Your task to perform on an android device: open app "Gboard" (install if not already installed) Image 0: 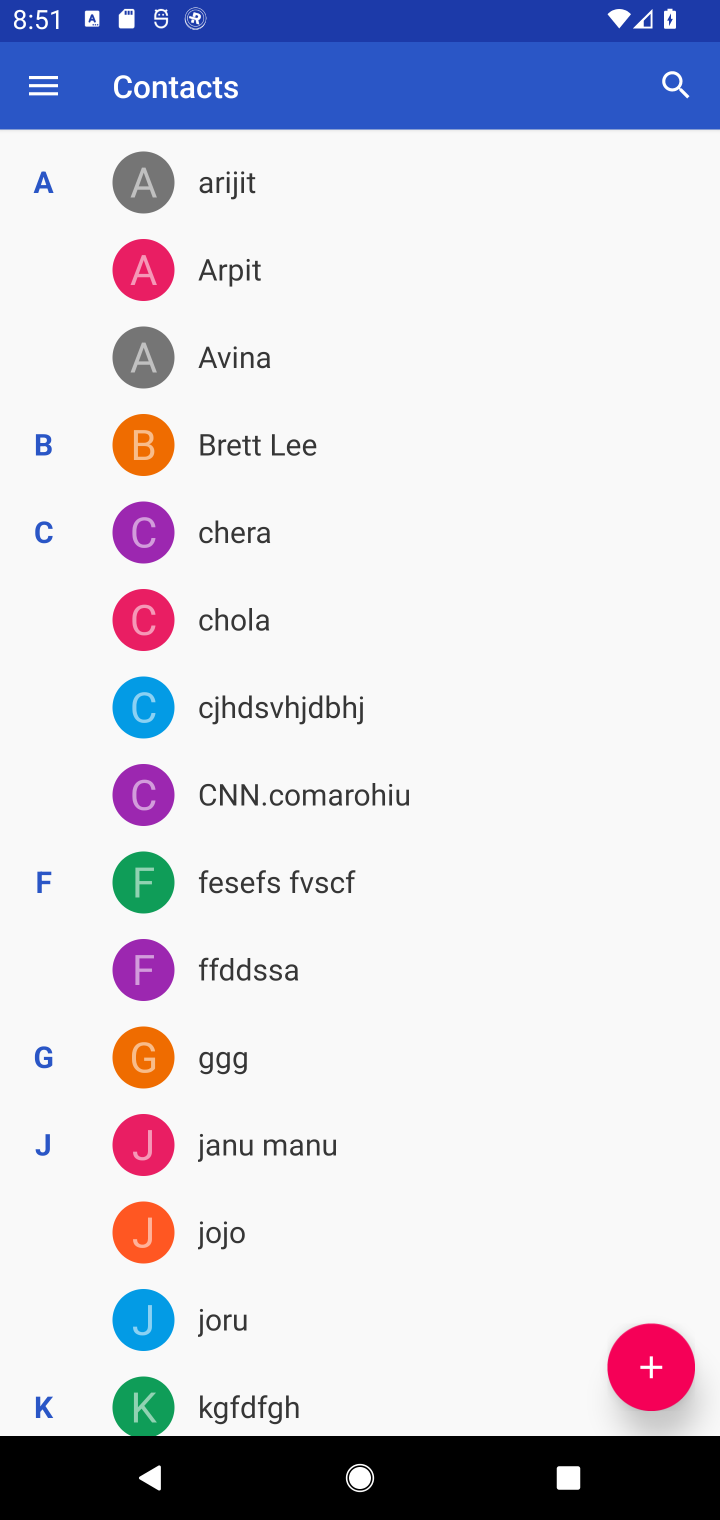
Step 0: press home button
Your task to perform on an android device: open app "Gboard" (install if not already installed) Image 1: 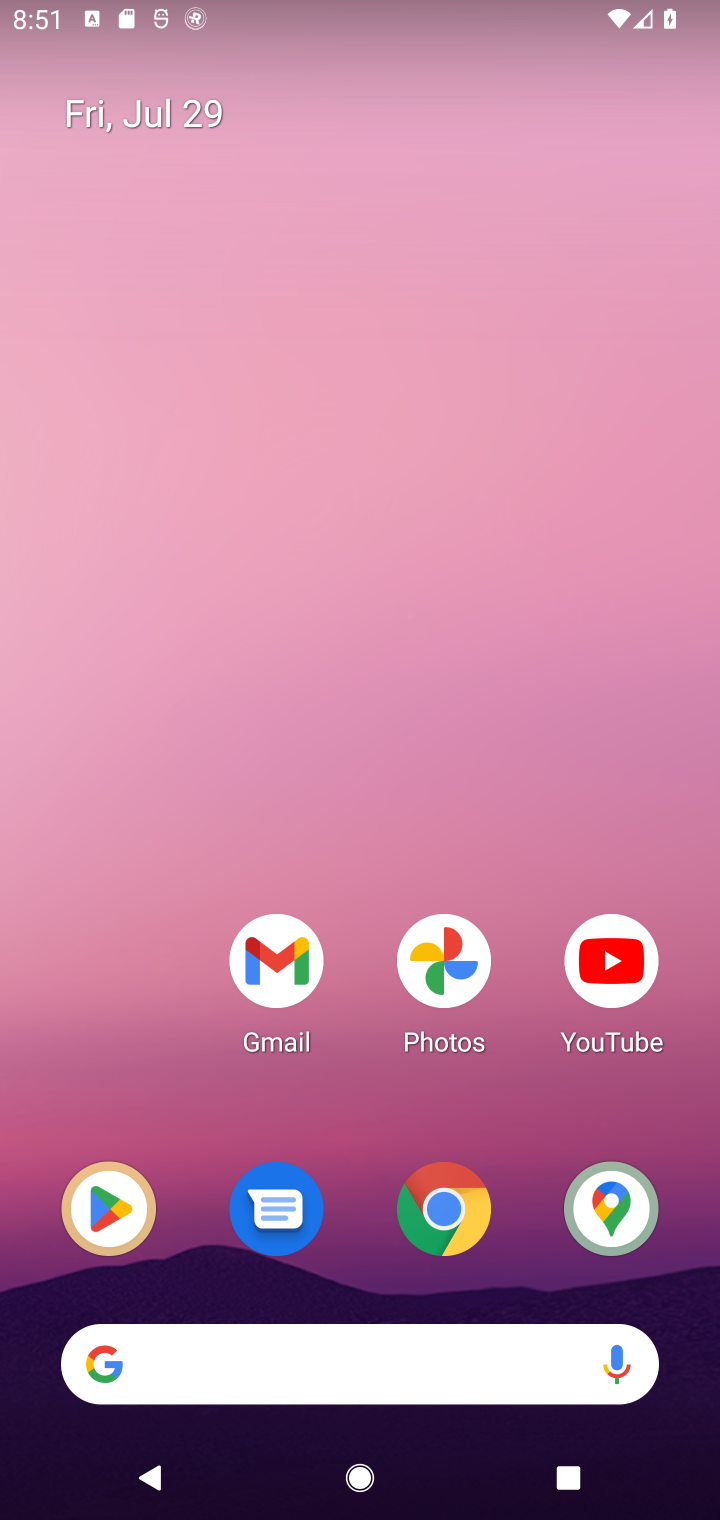
Step 1: click (114, 1216)
Your task to perform on an android device: open app "Gboard" (install if not already installed) Image 2: 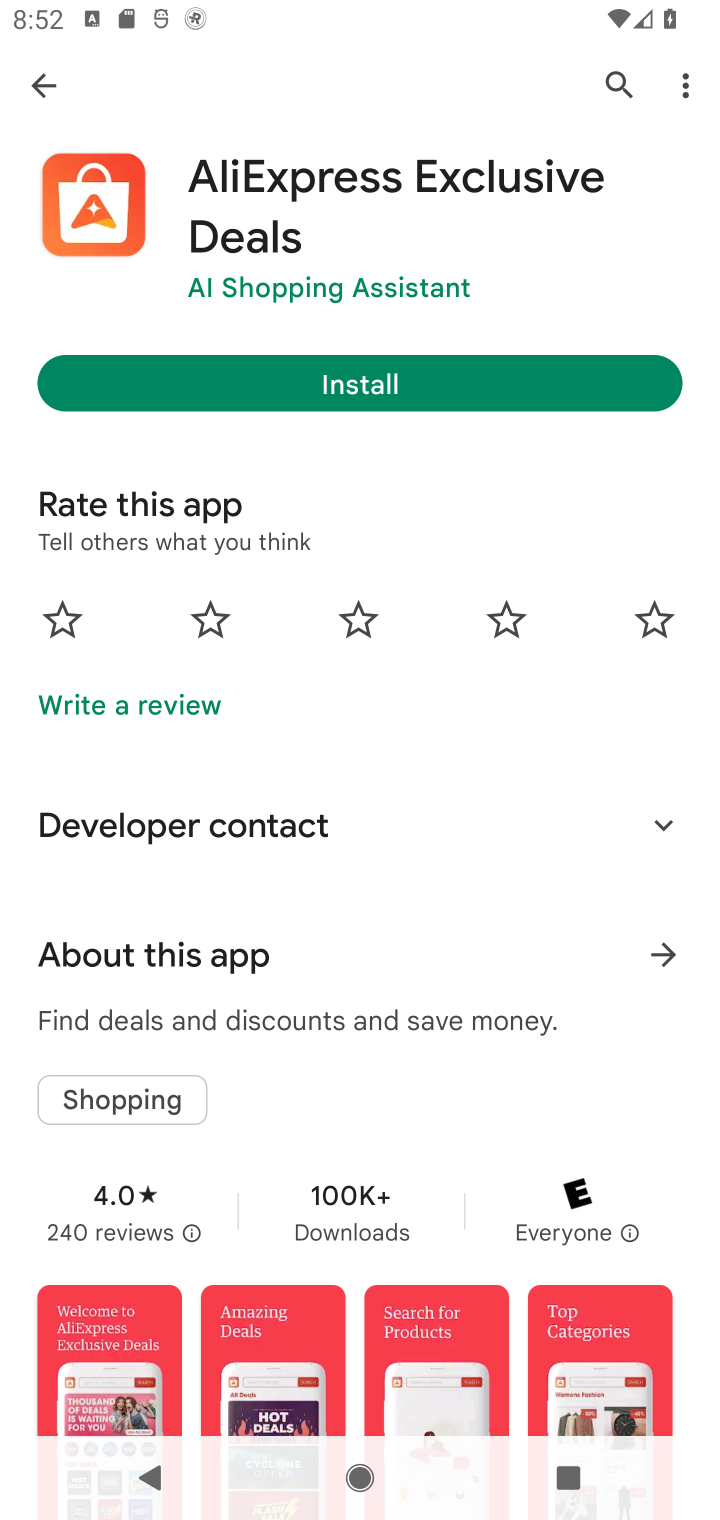
Step 2: click (617, 90)
Your task to perform on an android device: open app "Gboard" (install if not already installed) Image 3: 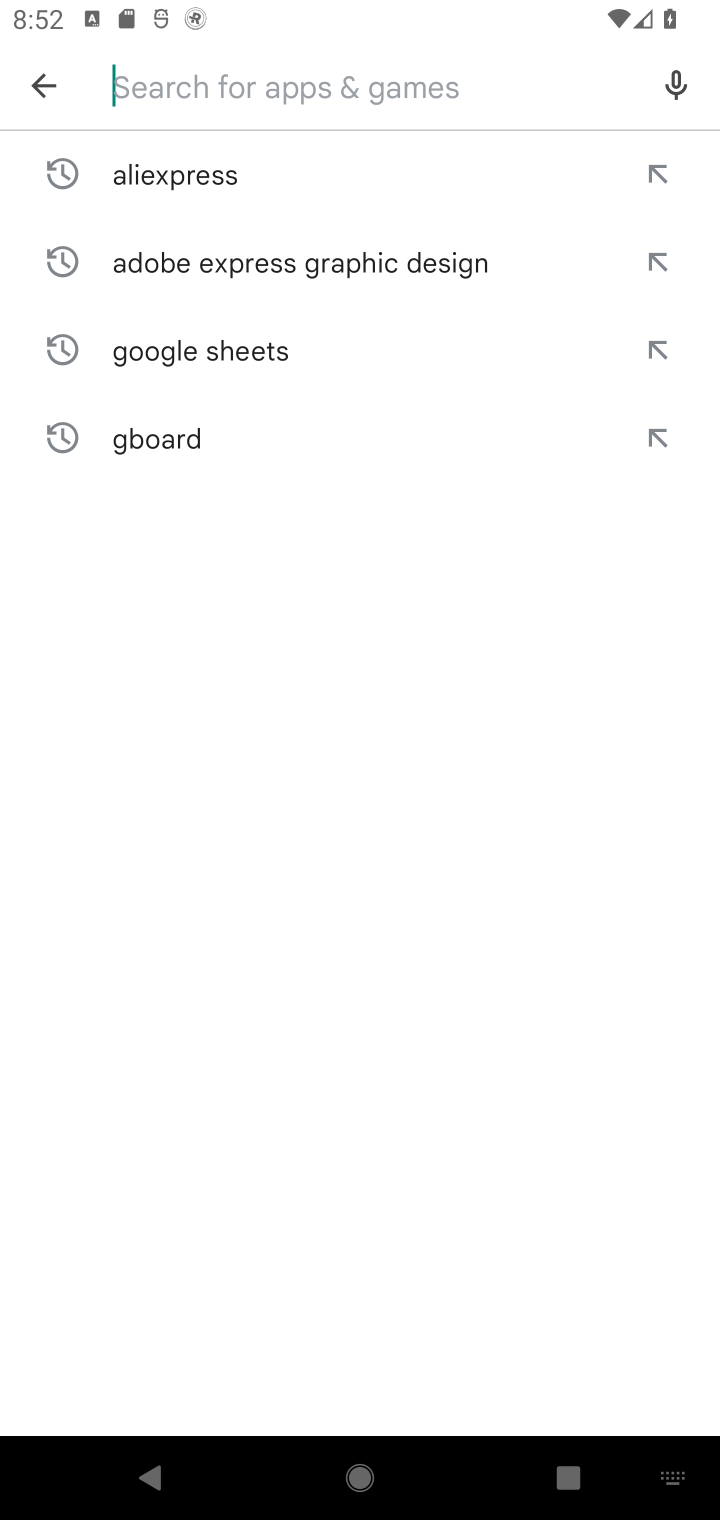
Step 3: type "Gboard"
Your task to perform on an android device: open app "Gboard" (install if not already installed) Image 4: 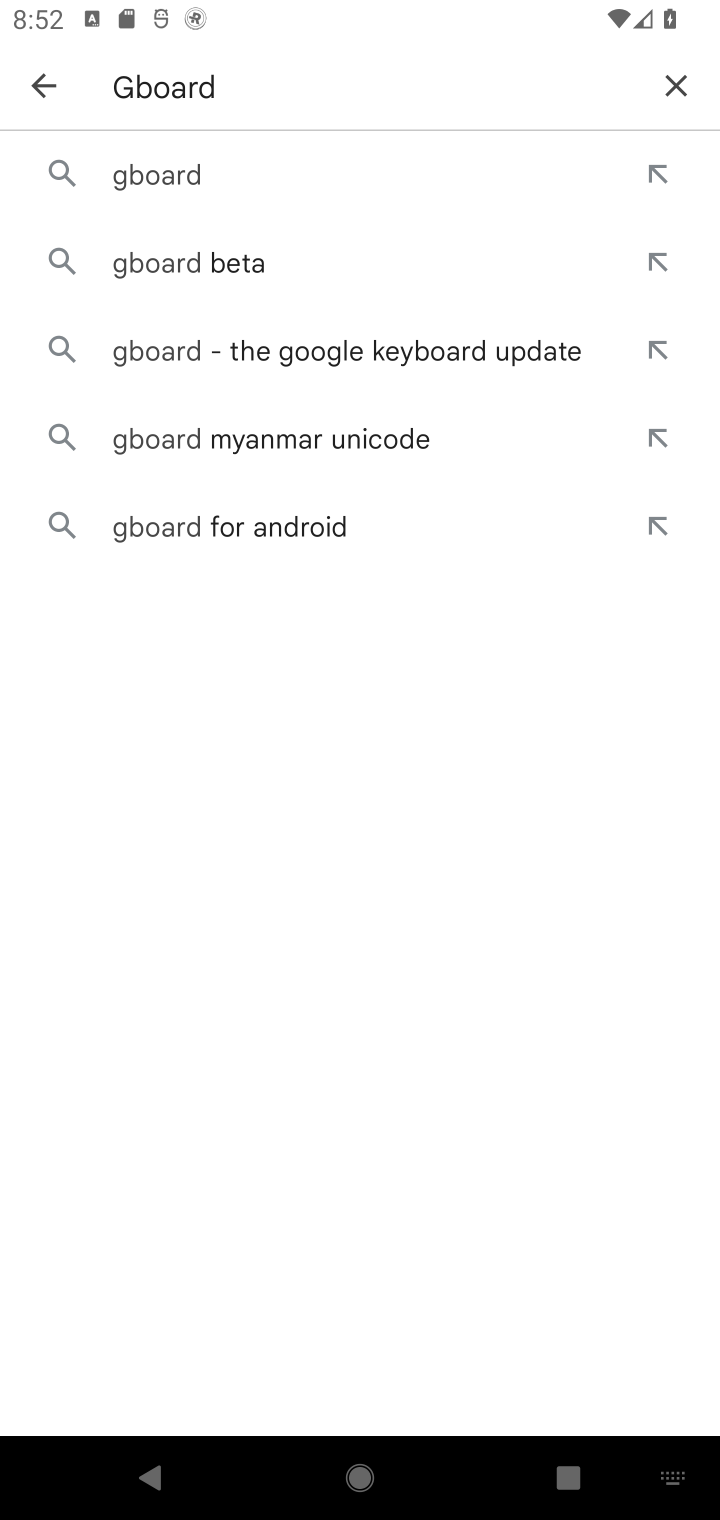
Step 4: click (126, 196)
Your task to perform on an android device: open app "Gboard" (install if not already installed) Image 5: 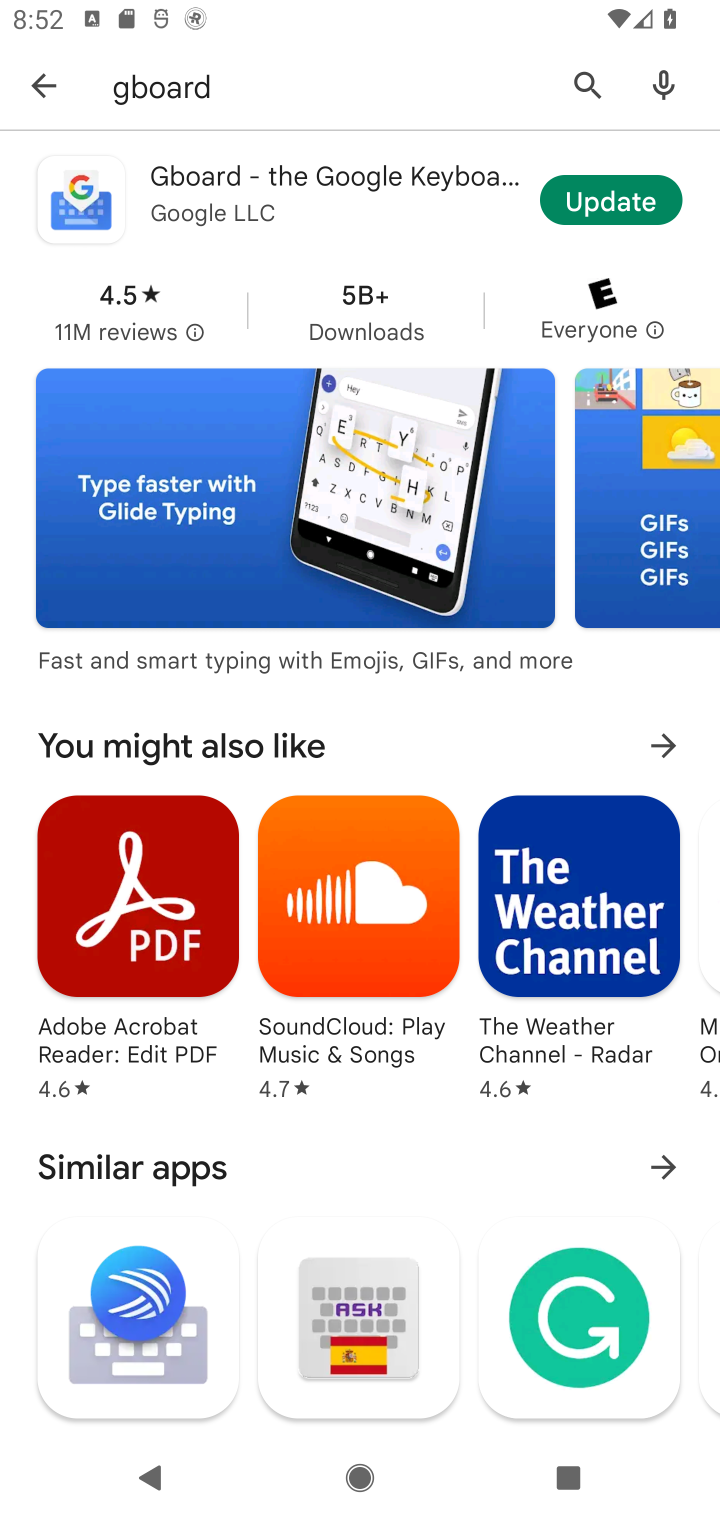
Step 5: click (254, 178)
Your task to perform on an android device: open app "Gboard" (install if not already installed) Image 6: 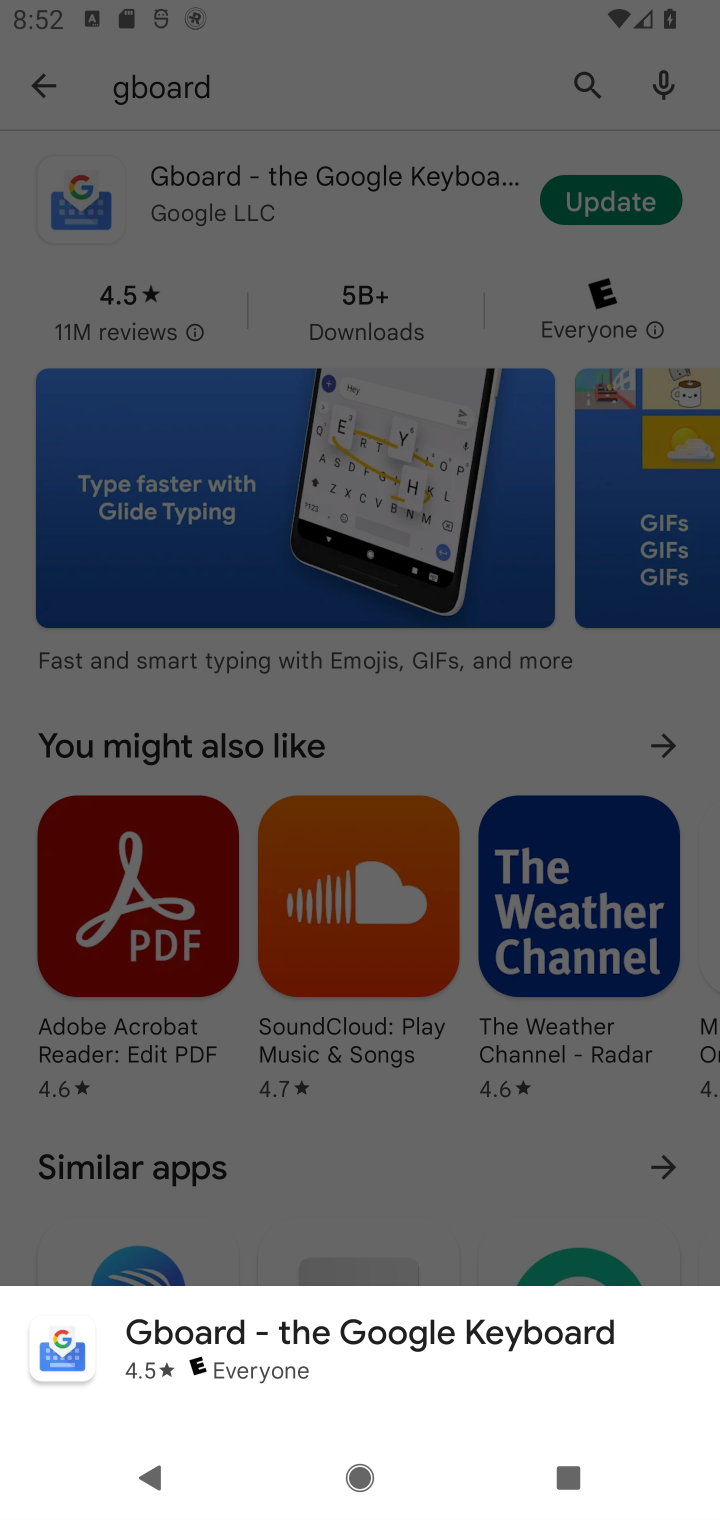
Step 6: click (254, 178)
Your task to perform on an android device: open app "Gboard" (install if not already installed) Image 7: 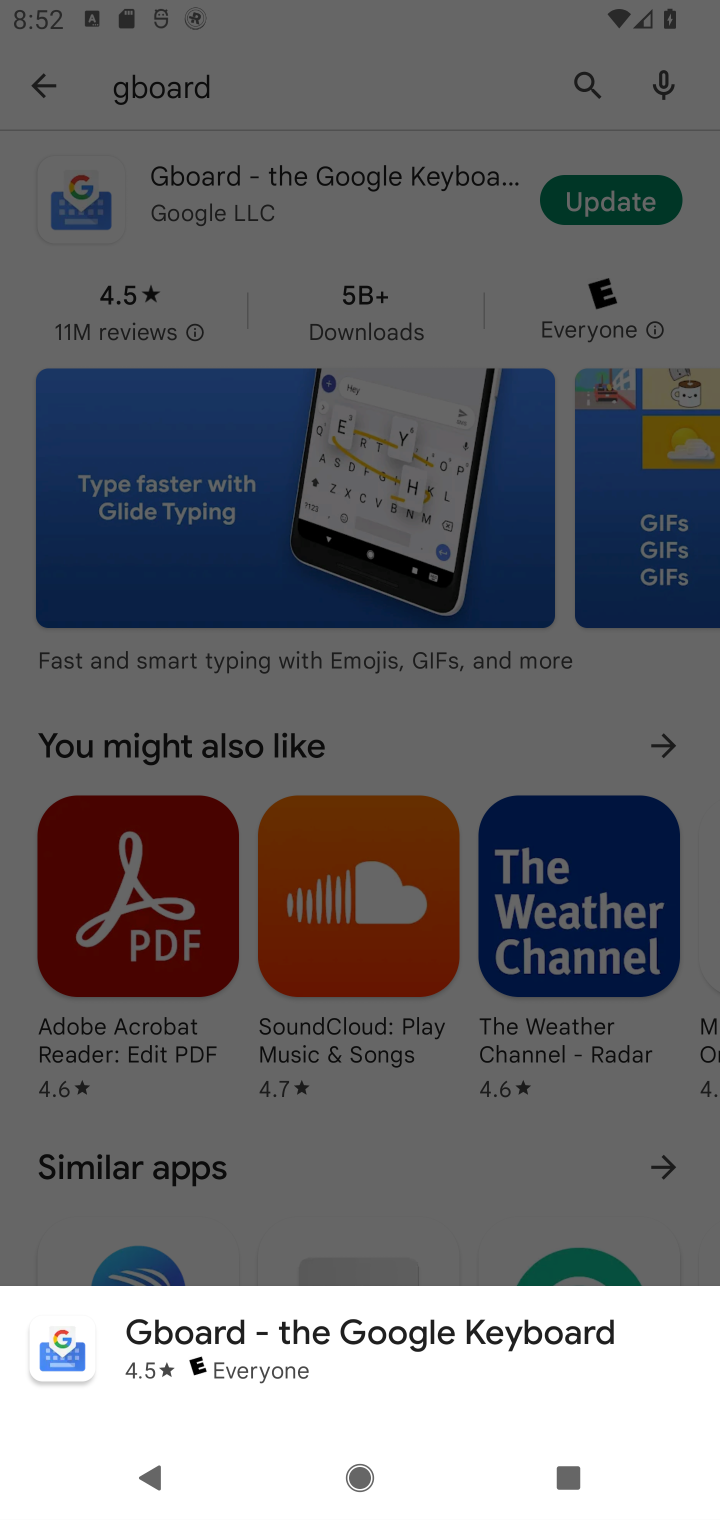
Step 7: click (185, 181)
Your task to perform on an android device: open app "Gboard" (install if not already installed) Image 8: 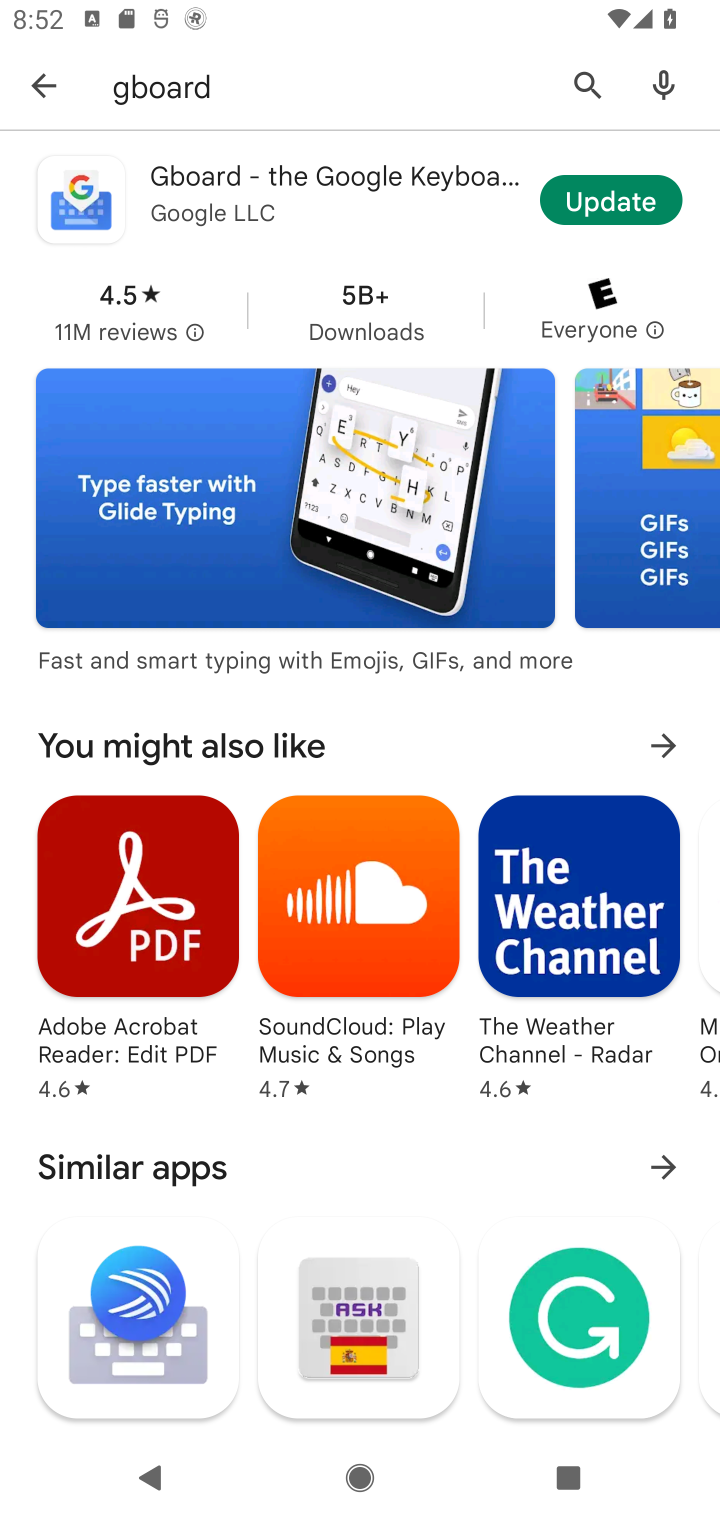
Step 8: click (185, 181)
Your task to perform on an android device: open app "Gboard" (install if not already installed) Image 9: 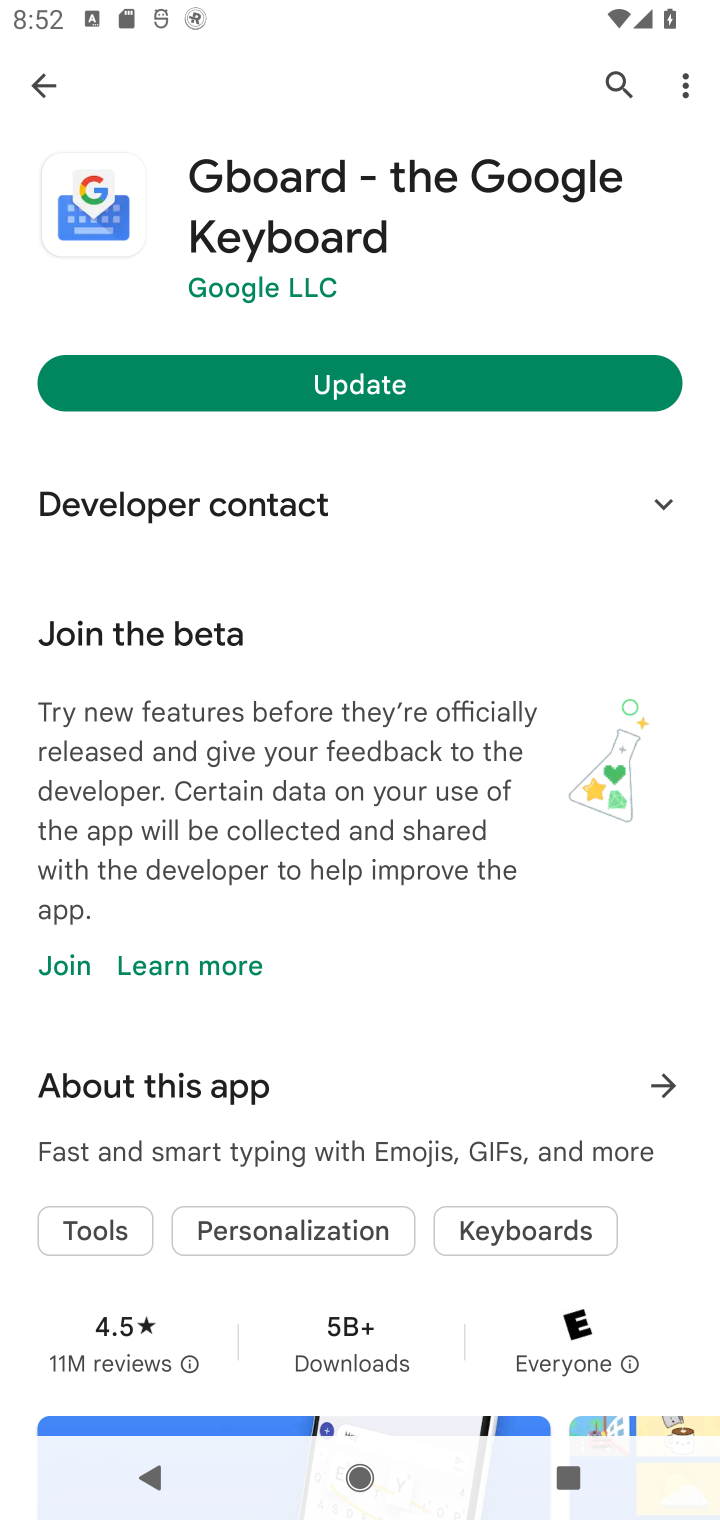
Step 9: click (217, 183)
Your task to perform on an android device: open app "Gboard" (install if not already installed) Image 10: 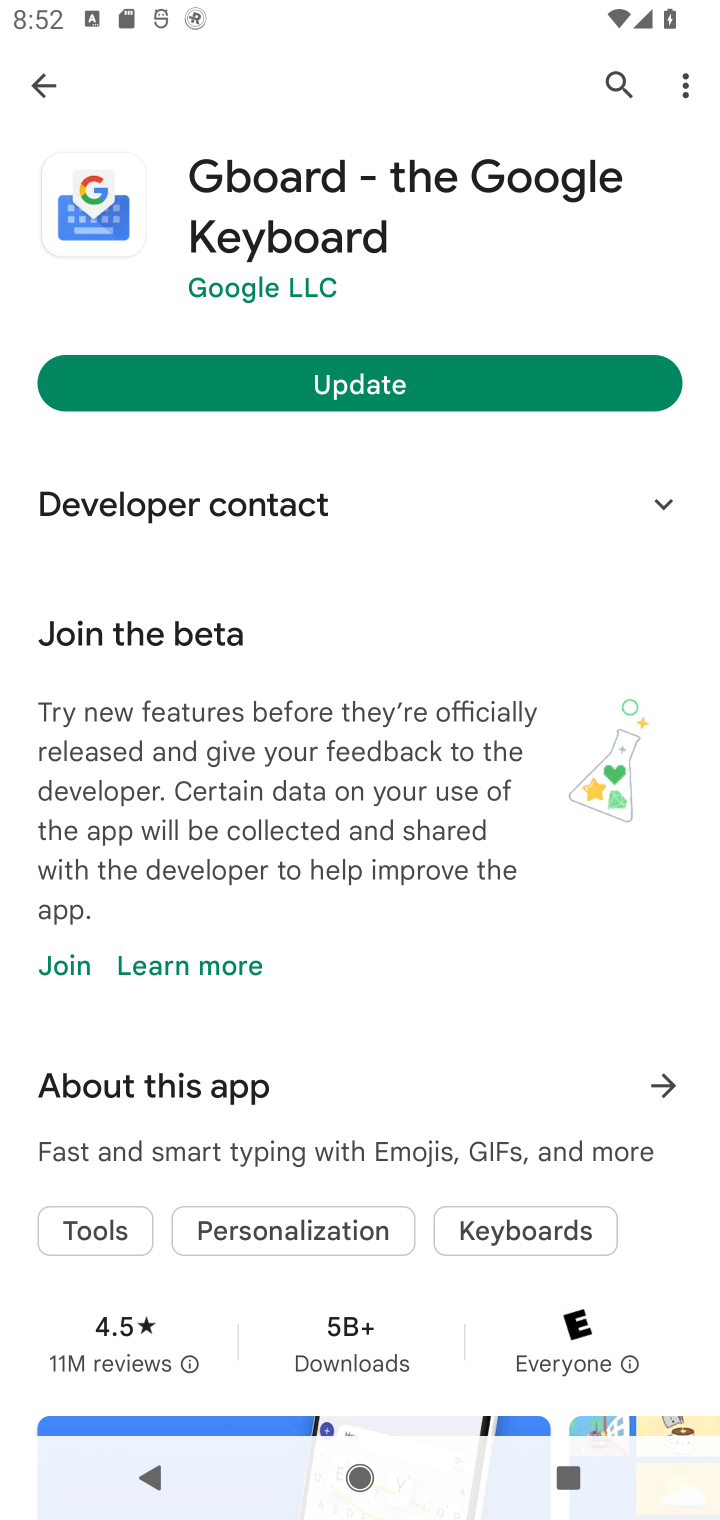
Step 10: click (485, 196)
Your task to perform on an android device: open app "Gboard" (install if not already installed) Image 11: 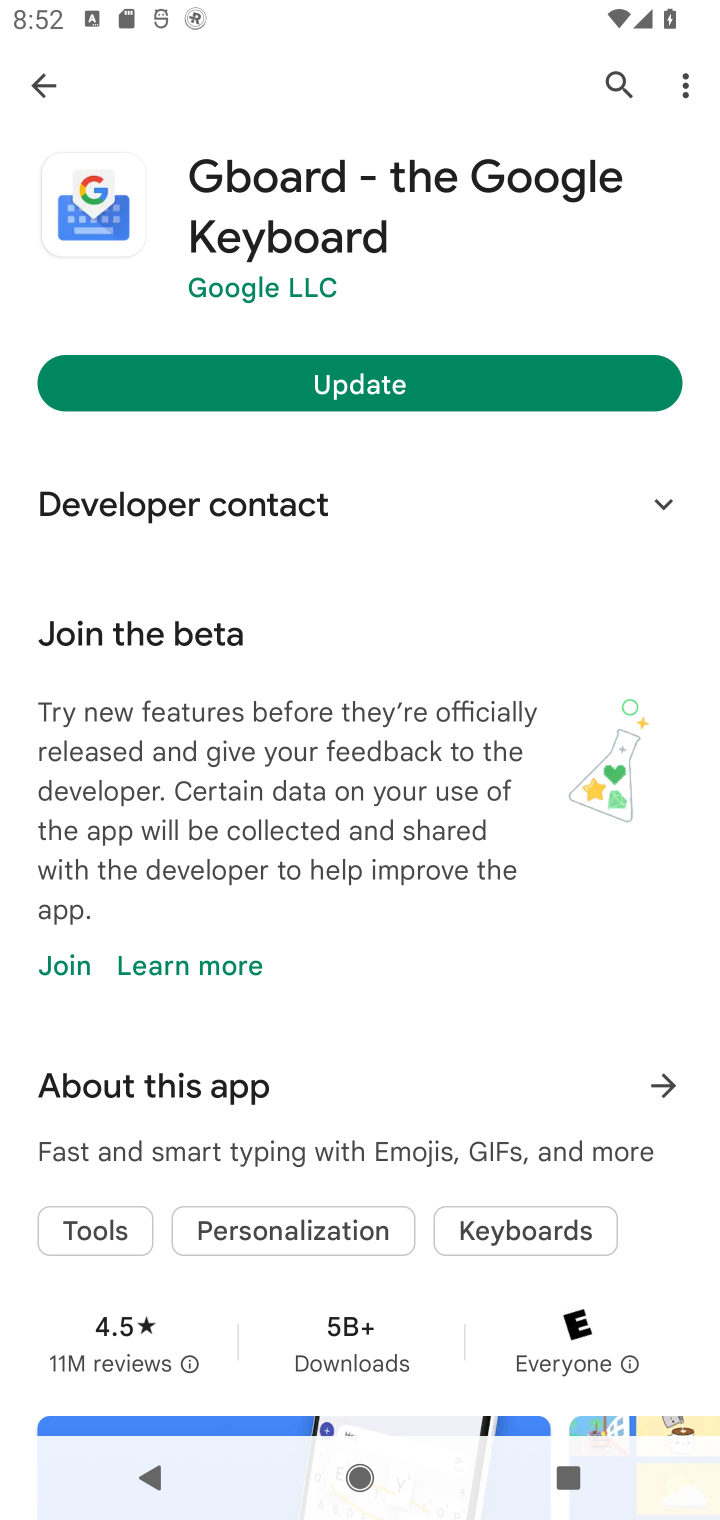
Step 11: click (295, 246)
Your task to perform on an android device: open app "Gboard" (install if not already installed) Image 12: 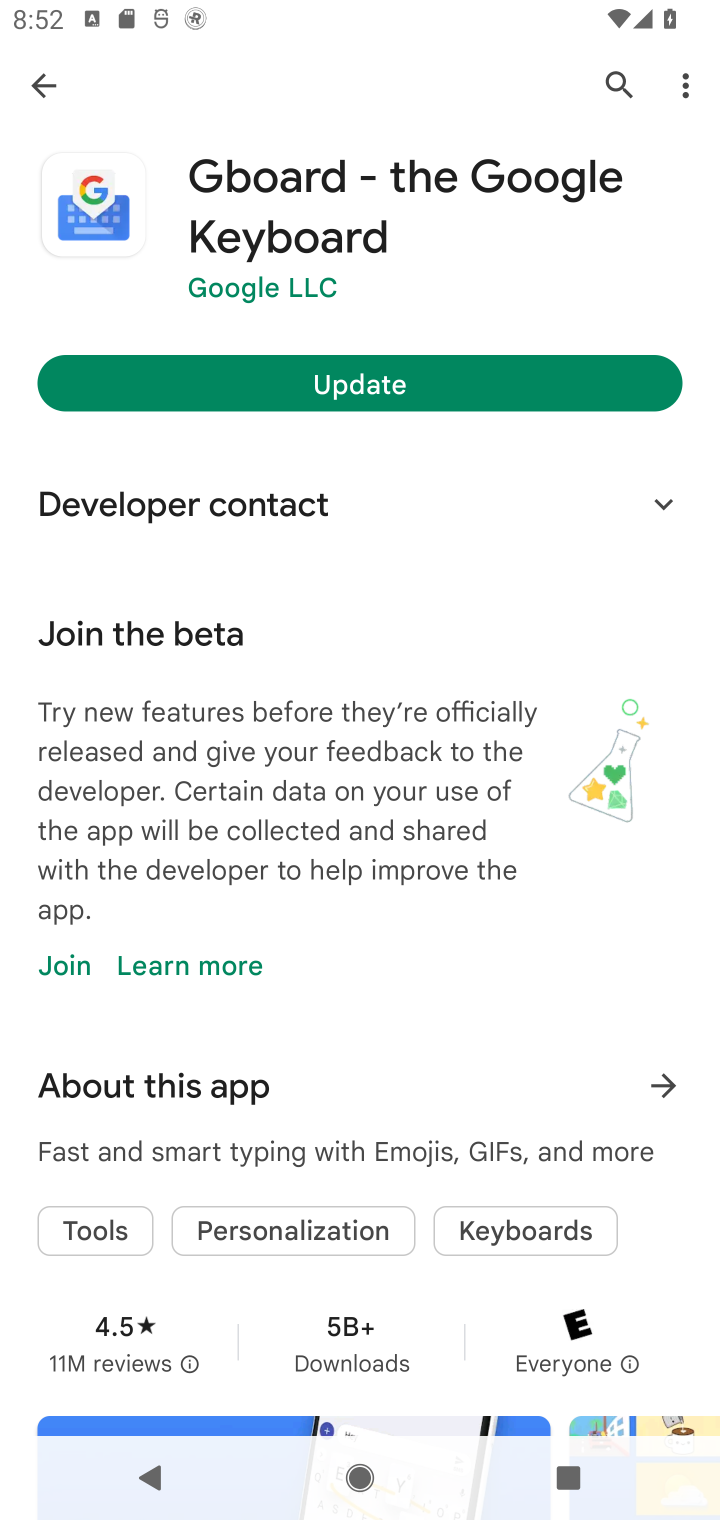
Step 12: press home button
Your task to perform on an android device: open app "Gboard" (install if not already installed) Image 13: 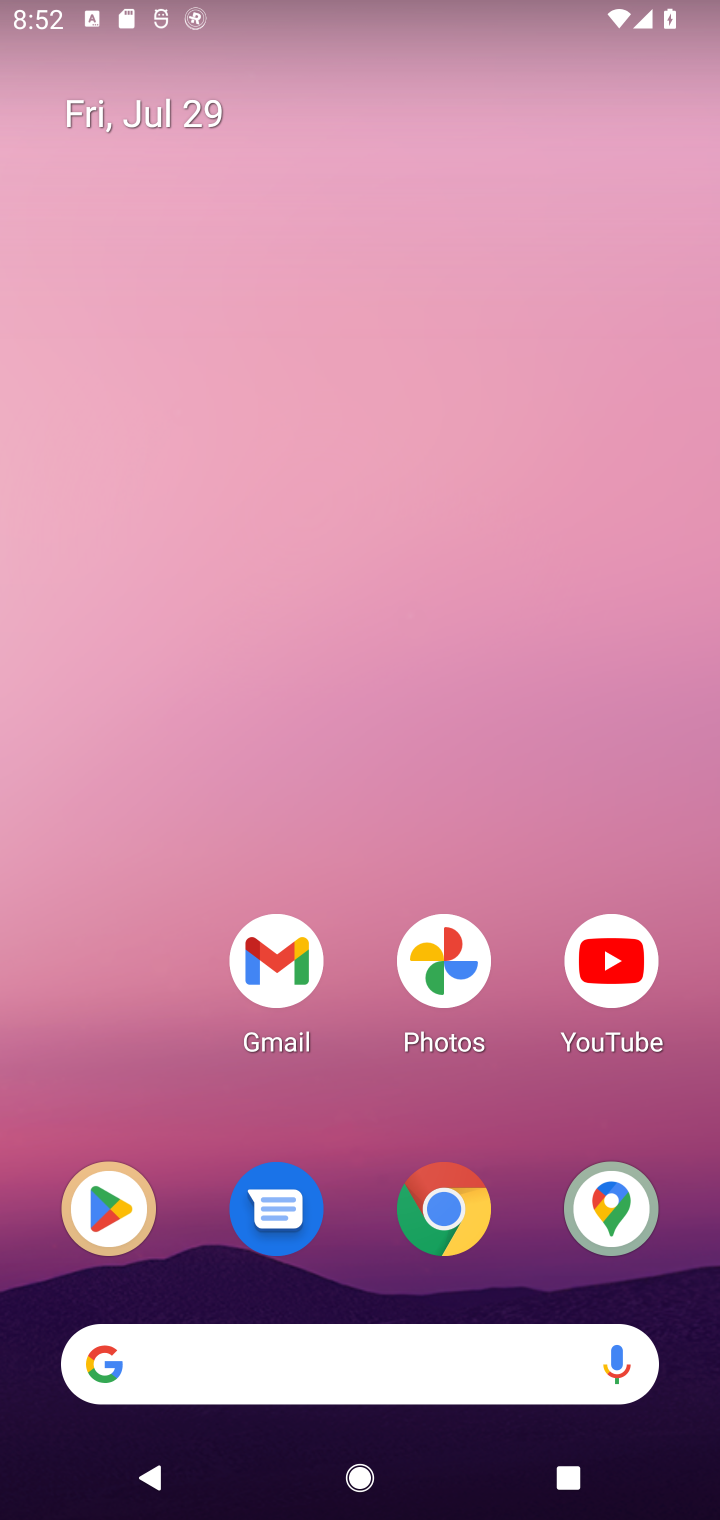
Step 13: drag from (309, 796) to (3, 767)
Your task to perform on an android device: open app "Gboard" (install if not already installed) Image 14: 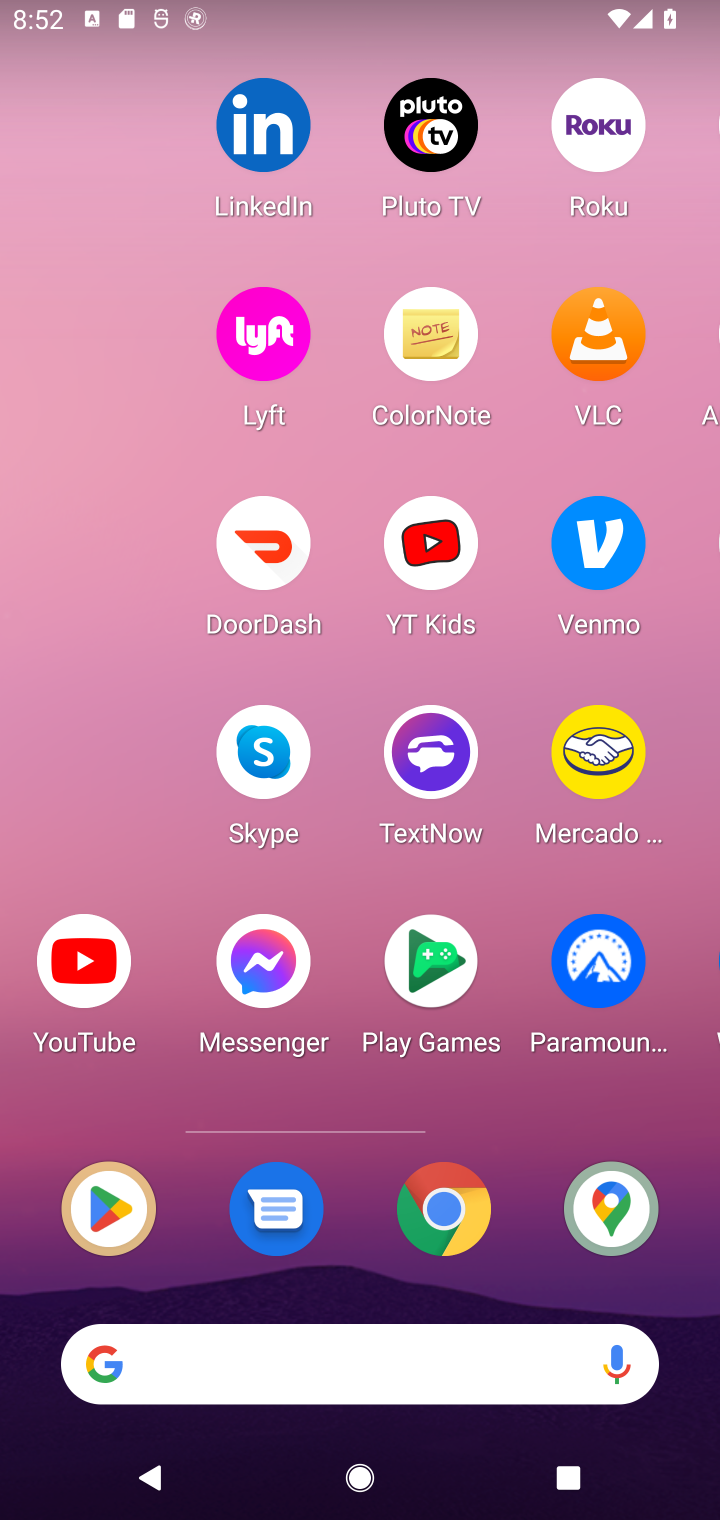
Step 14: drag from (643, 794) to (156, 781)
Your task to perform on an android device: open app "Gboard" (install if not already installed) Image 15: 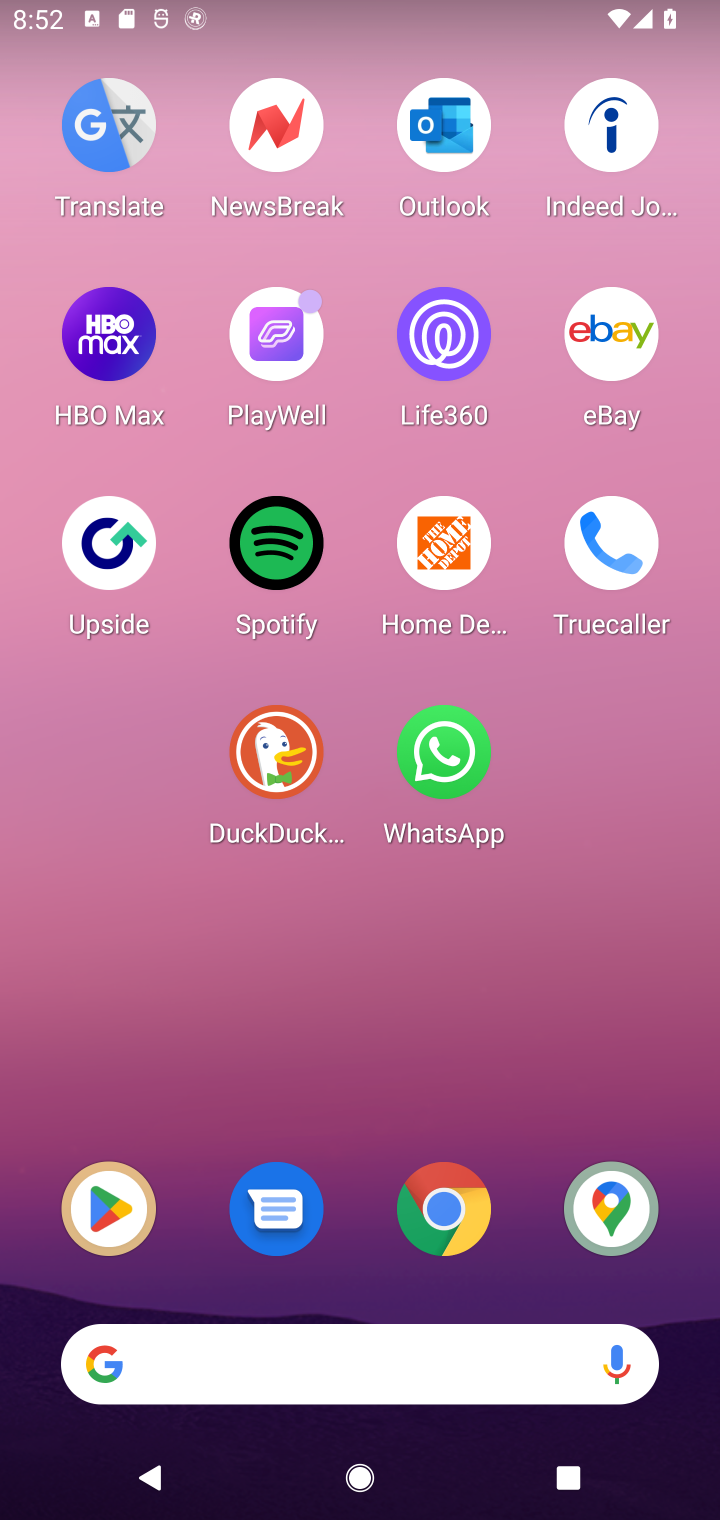
Step 15: drag from (136, 844) to (711, 987)
Your task to perform on an android device: open app "Gboard" (install if not already installed) Image 16: 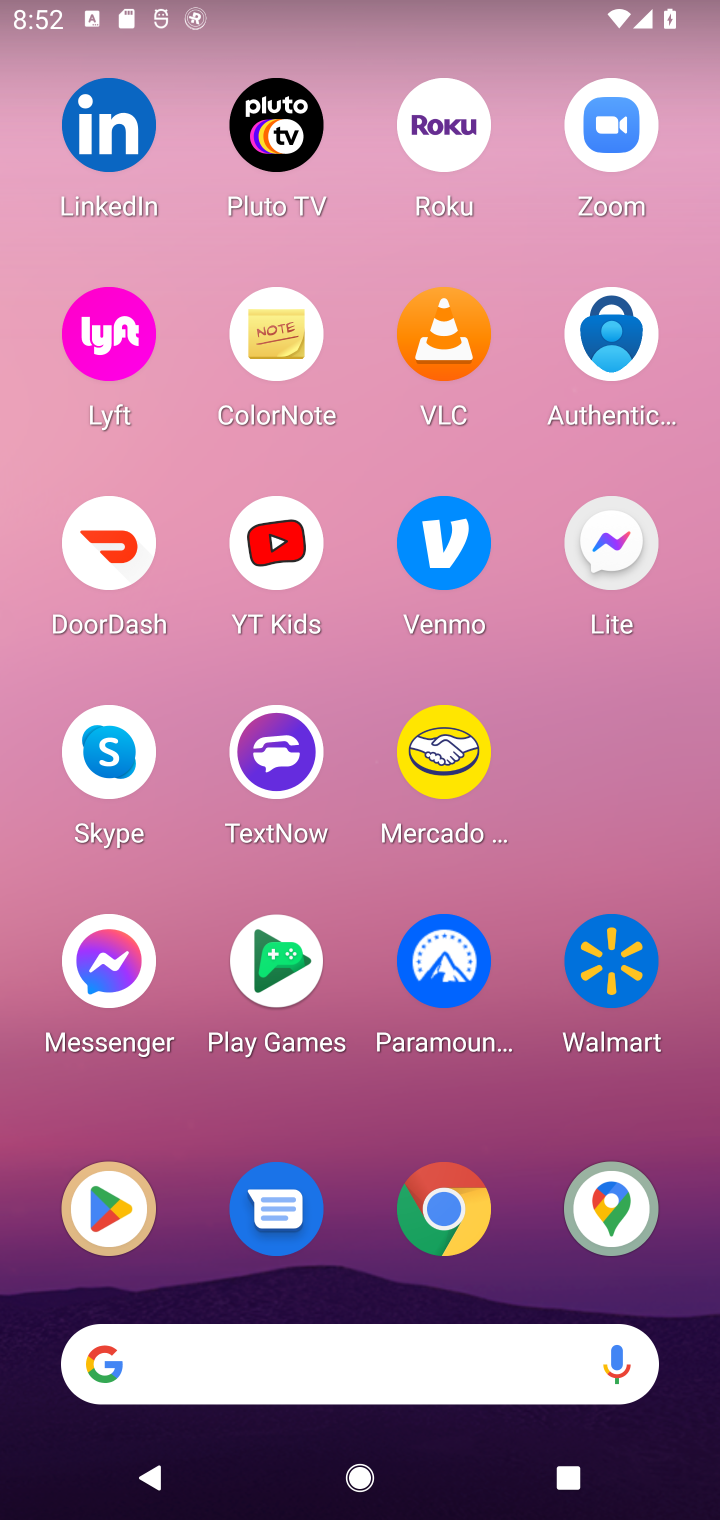
Step 16: drag from (509, 1265) to (615, 306)
Your task to perform on an android device: open app "Gboard" (install if not already installed) Image 17: 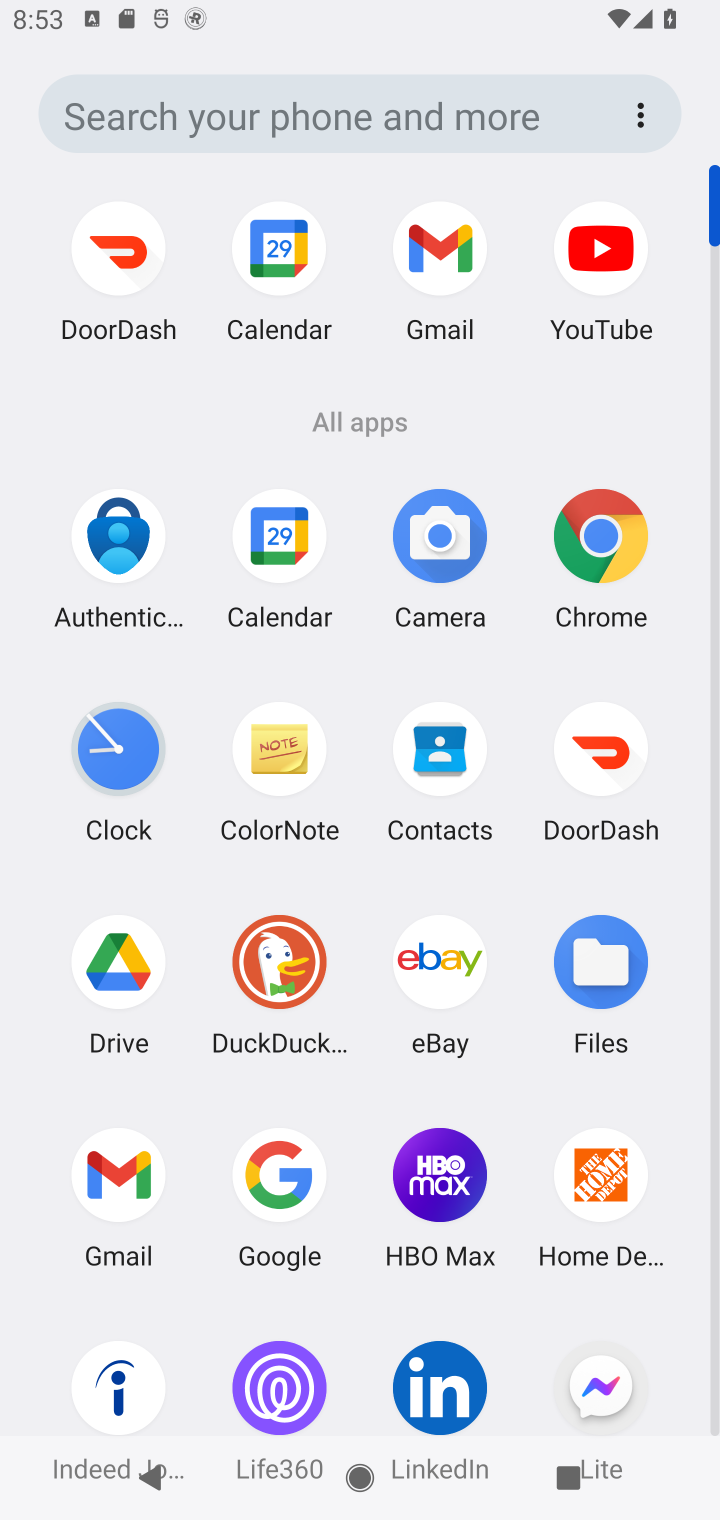
Step 17: click (710, 1084)
Your task to perform on an android device: open app "Gboard" (install if not already installed) Image 18: 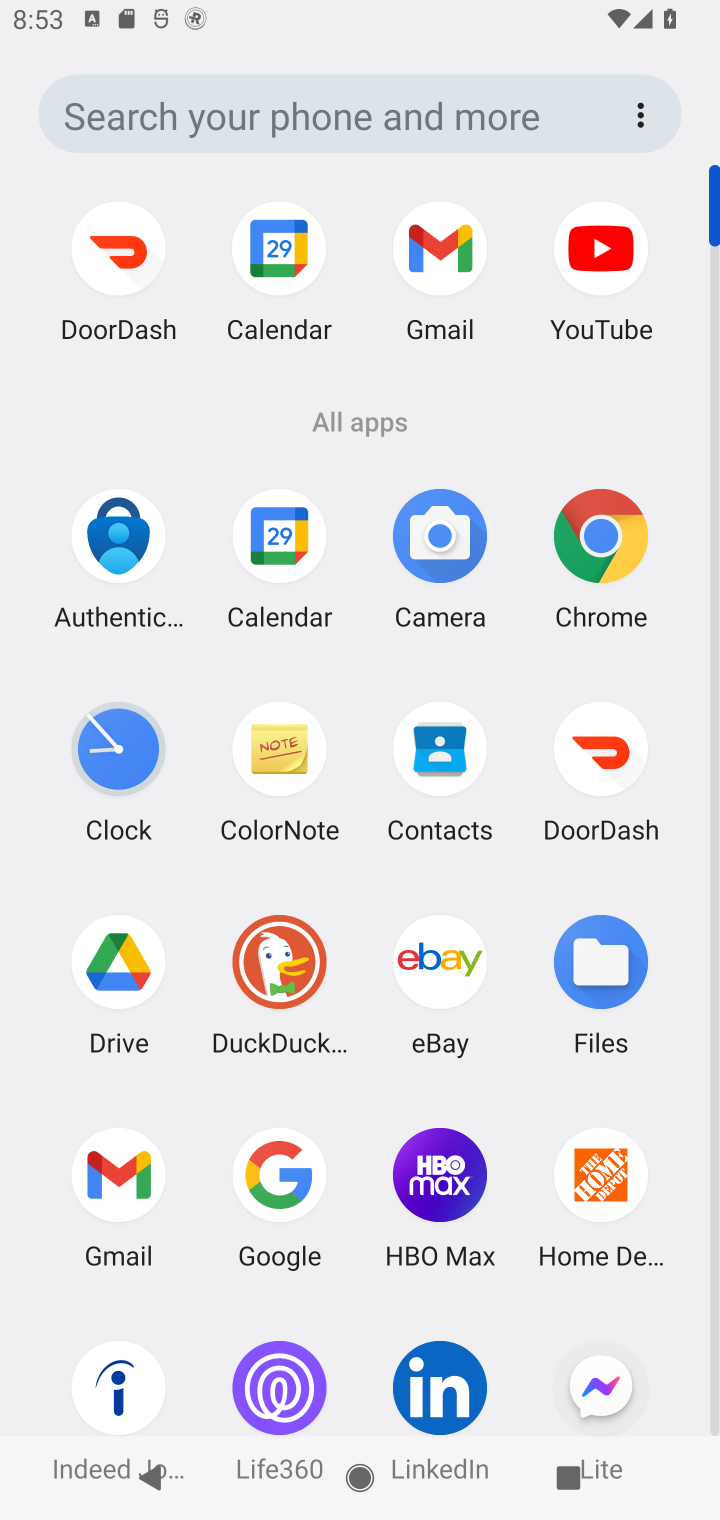
Step 18: task complete